Your task to perform on an android device: Go to eBay Image 0: 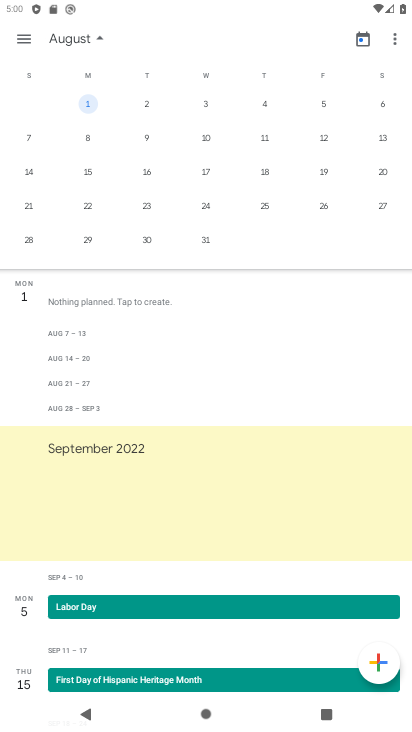
Step 0: press home button
Your task to perform on an android device: Go to eBay Image 1: 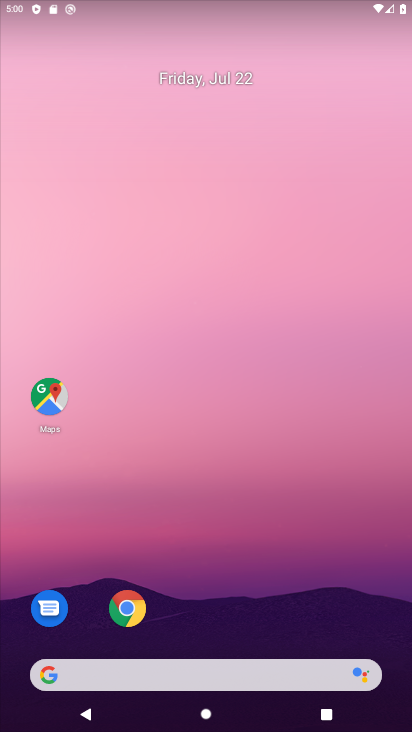
Step 1: click (139, 600)
Your task to perform on an android device: Go to eBay Image 2: 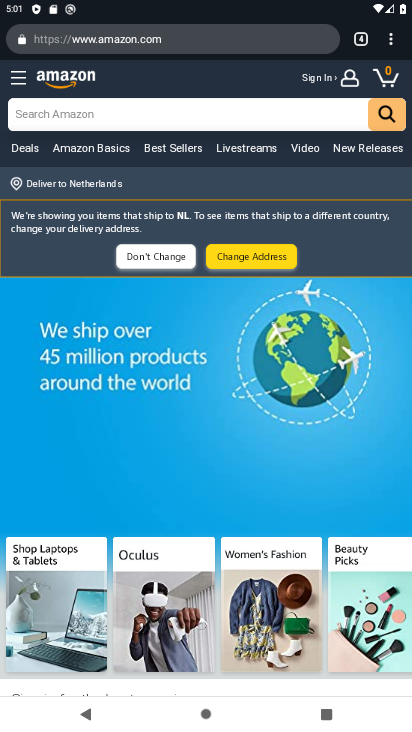
Step 2: click (363, 37)
Your task to perform on an android device: Go to eBay Image 3: 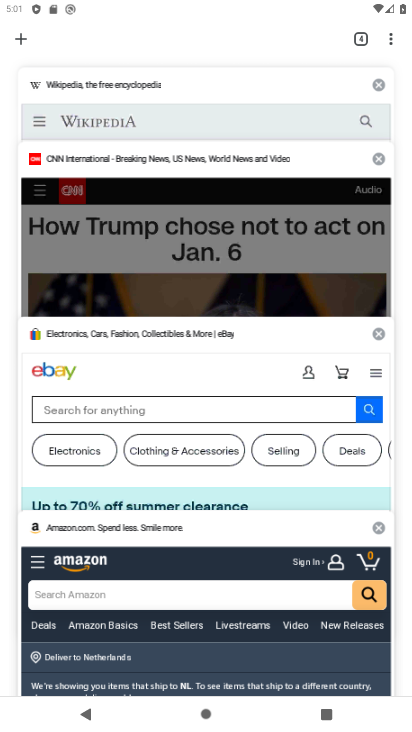
Step 3: click (22, 56)
Your task to perform on an android device: Go to eBay Image 4: 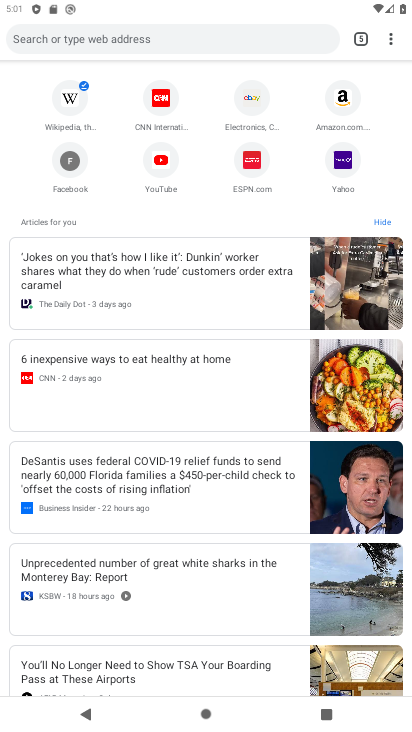
Step 4: click (255, 99)
Your task to perform on an android device: Go to eBay Image 5: 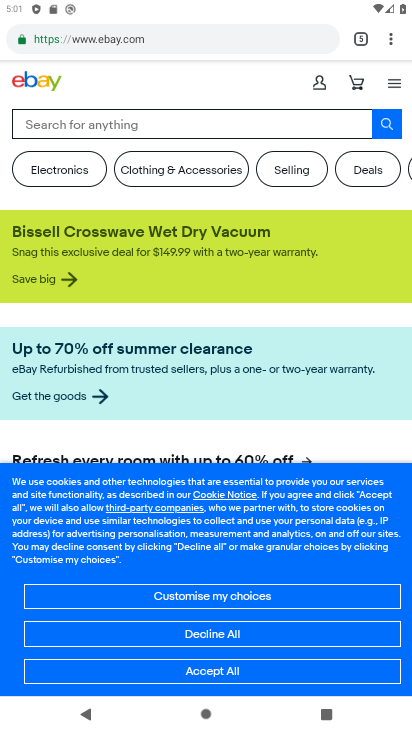
Step 5: task complete